Your task to perform on an android device: clear all cookies in the chrome app Image 0: 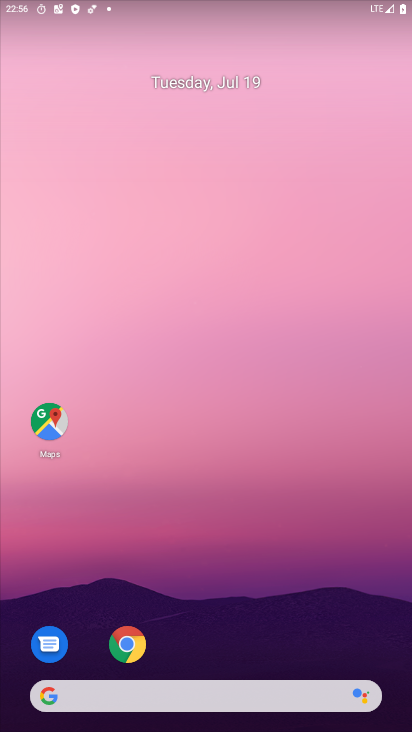
Step 0: press home button
Your task to perform on an android device: clear all cookies in the chrome app Image 1: 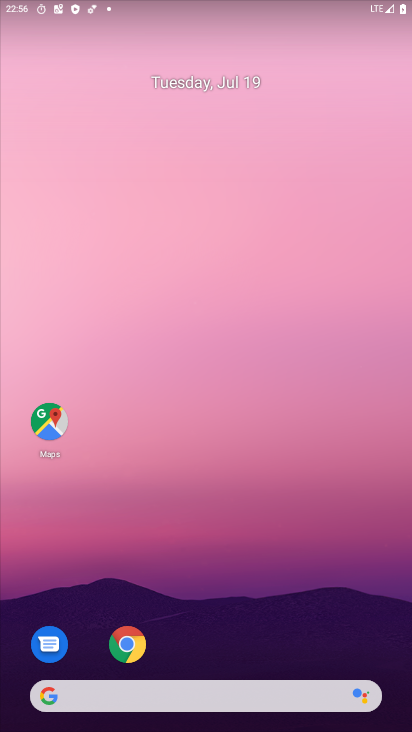
Step 1: drag from (287, 626) to (291, 21)
Your task to perform on an android device: clear all cookies in the chrome app Image 2: 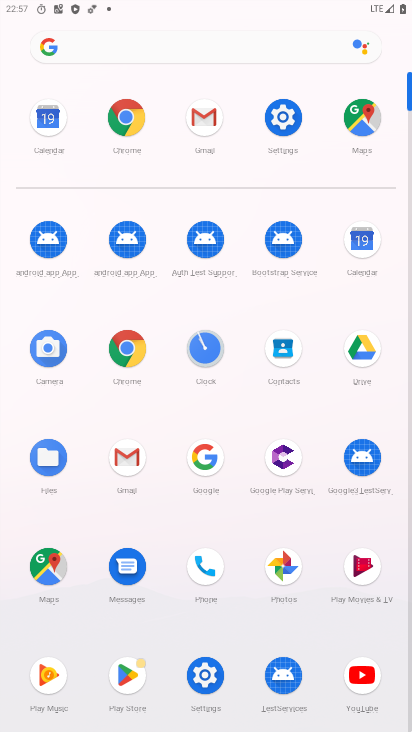
Step 2: click (132, 129)
Your task to perform on an android device: clear all cookies in the chrome app Image 3: 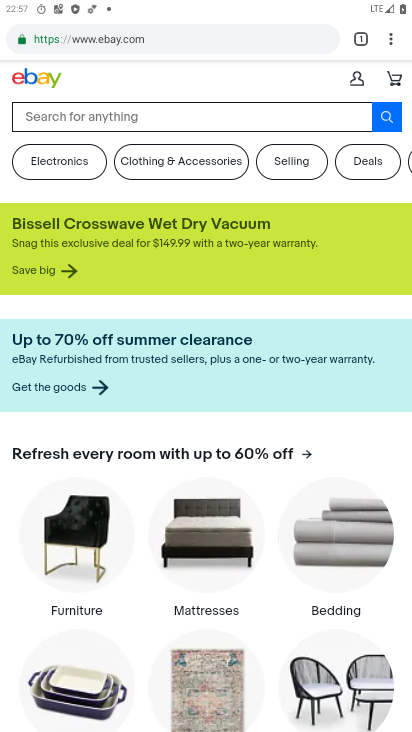
Step 3: drag from (398, 43) to (236, 459)
Your task to perform on an android device: clear all cookies in the chrome app Image 4: 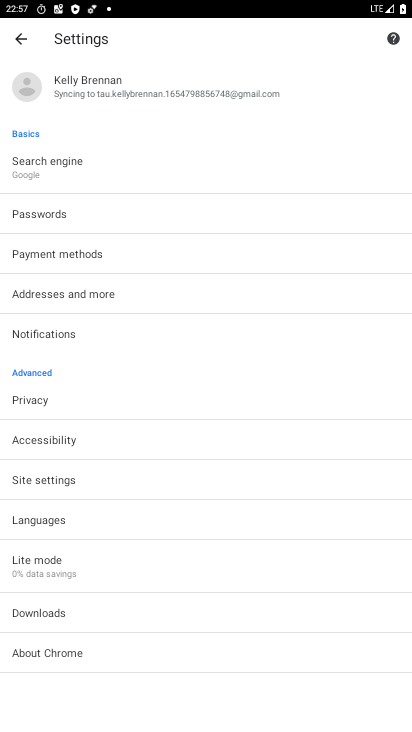
Step 4: click (25, 405)
Your task to perform on an android device: clear all cookies in the chrome app Image 5: 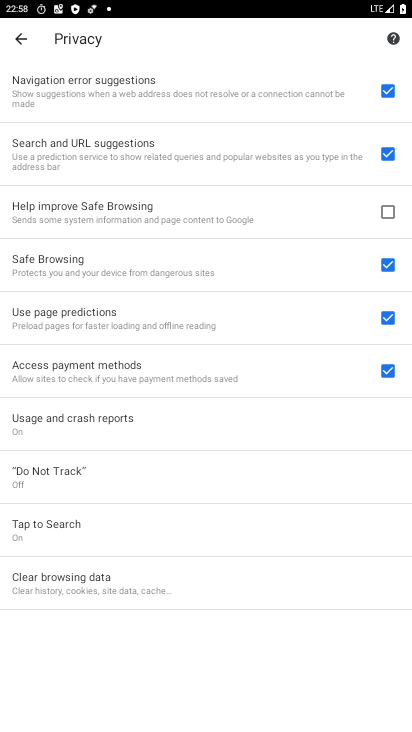
Step 5: click (50, 593)
Your task to perform on an android device: clear all cookies in the chrome app Image 6: 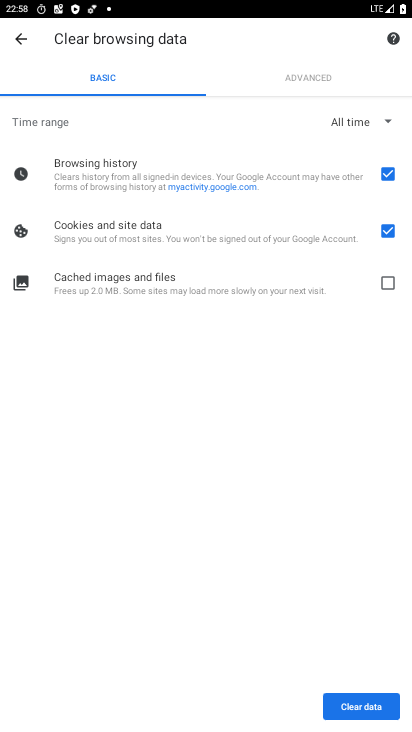
Step 6: click (346, 706)
Your task to perform on an android device: clear all cookies in the chrome app Image 7: 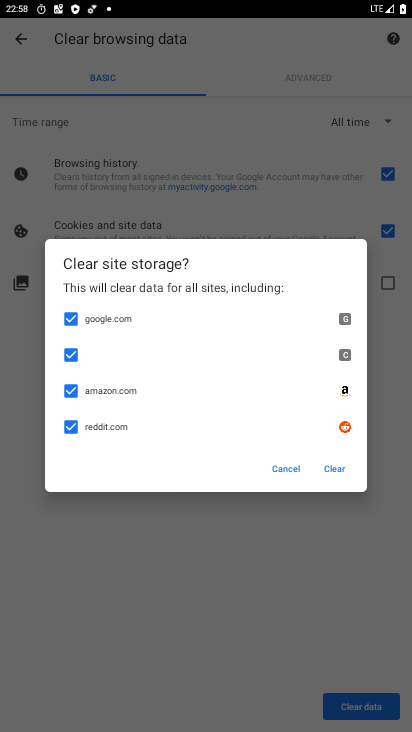
Step 7: click (352, 477)
Your task to perform on an android device: clear all cookies in the chrome app Image 8: 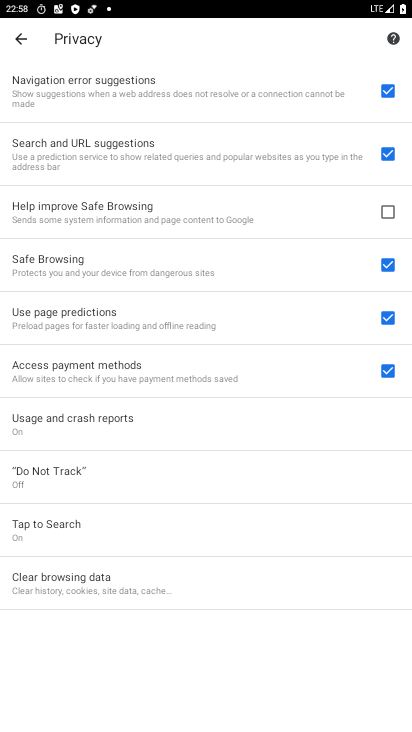
Step 8: task complete